Your task to perform on an android device: Is it going to rain tomorrow? Image 0: 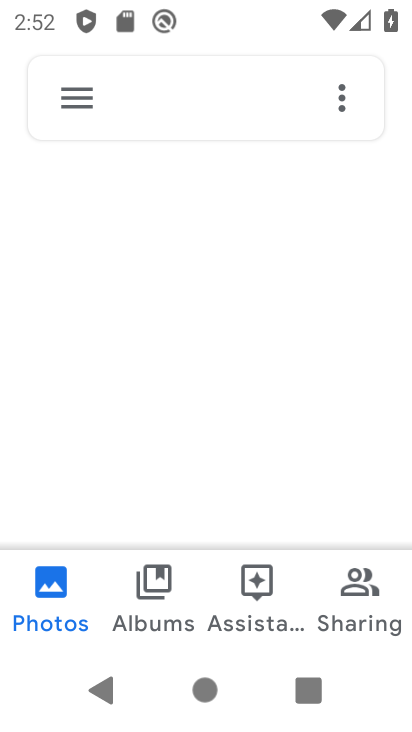
Step 0: press back button
Your task to perform on an android device: Is it going to rain tomorrow? Image 1: 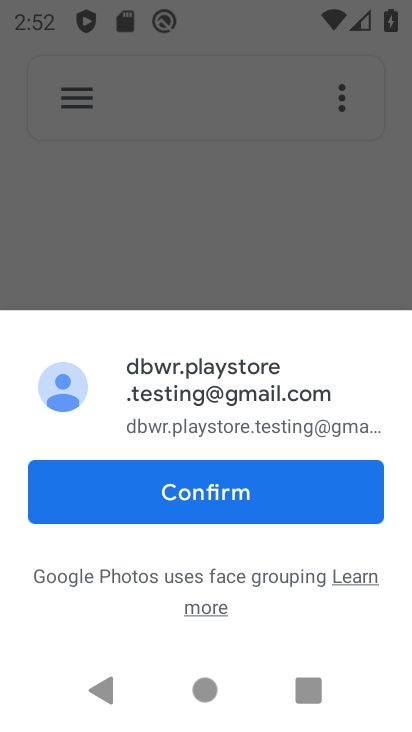
Step 1: press home button
Your task to perform on an android device: Is it going to rain tomorrow? Image 2: 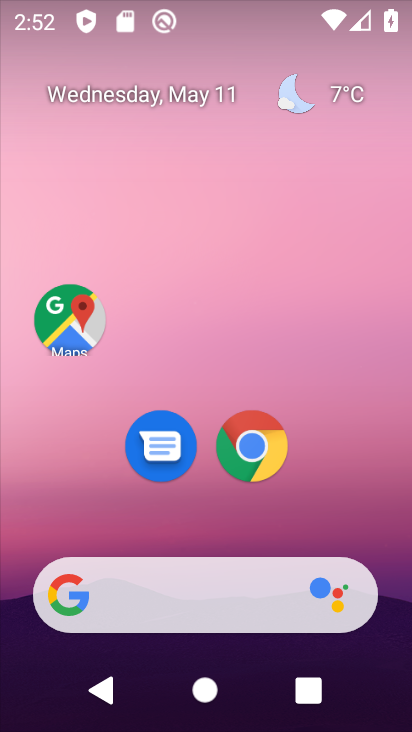
Step 2: click (223, 489)
Your task to perform on an android device: Is it going to rain tomorrow? Image 3: 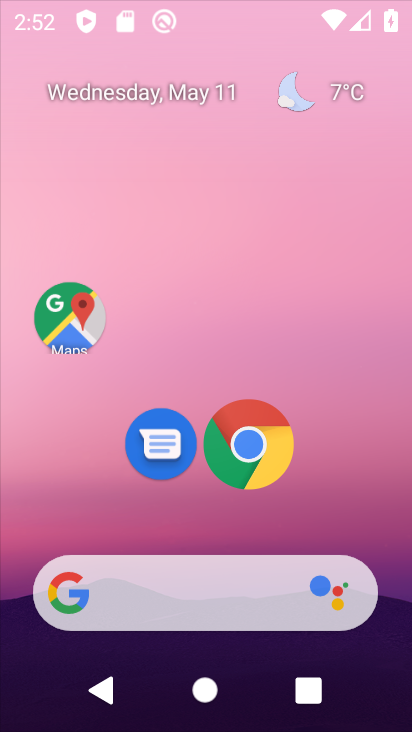
Step 3: drag from (343, 572) to (17, 20)
Your task to perform on an android device: Is it going to rain tomorrow? Image 4: 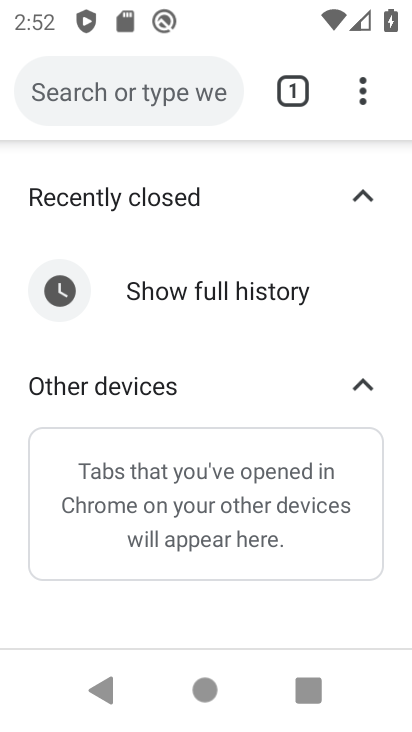
Step 4: press back button
Your task to perform on an android device: Is it going to rain tomorrow? Image 5: 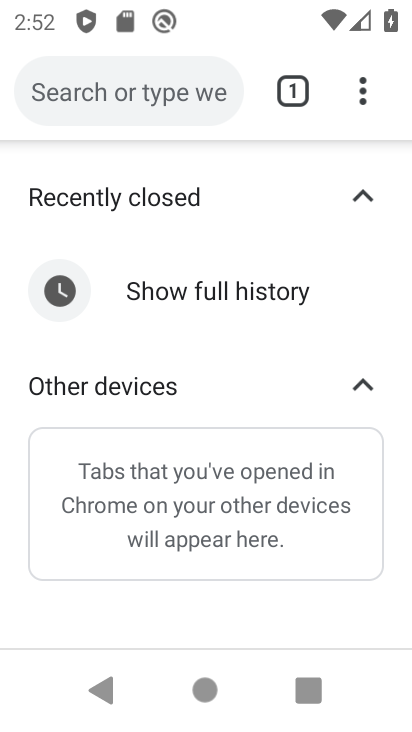
Step 5: press back button
Your task to perform on an android device: Is it going to rain tomorrow? Image 6: 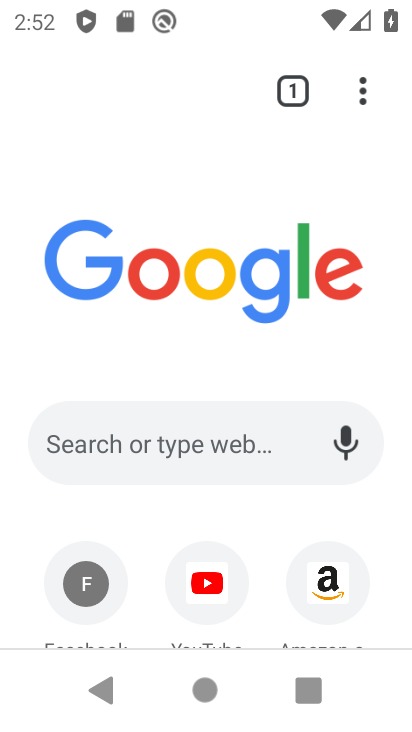
Step 6: drag from (6, 230) to (410, 359)
Your task to perform on an android device: Is it going to rain tomorrow? Image 7: 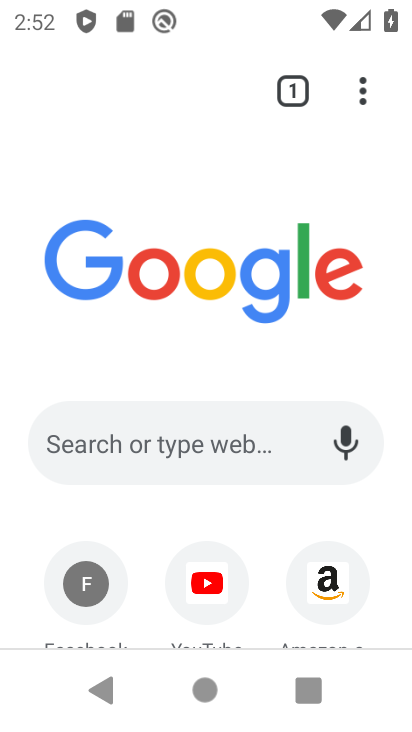
Step 7: drag from (7, 196) to (347, 197)
Your task to perform on an android device: Is it going to rain tomorrow? Image 8: 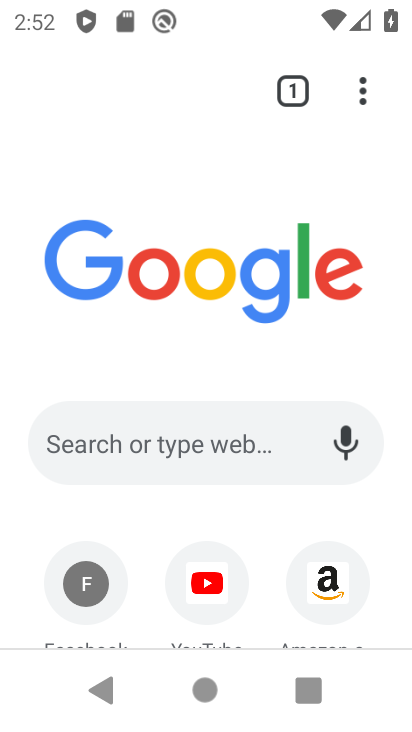
Step 8: drag from (11, 165) to (391, 295)
Your task to perform on an android device: Is it going to rain tomorrow? Image 9: 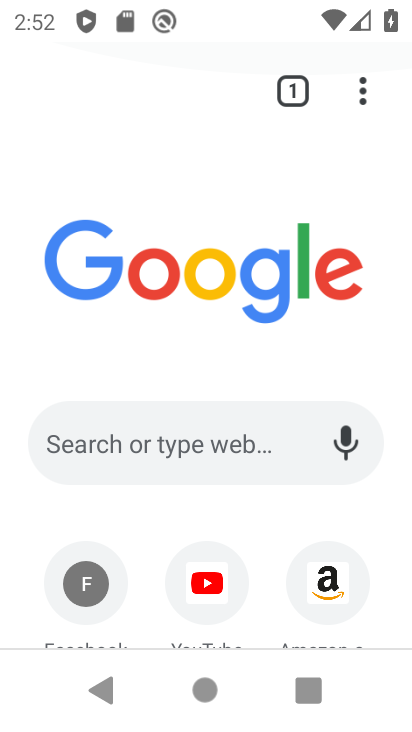
Step 9: drag from (5, 219) to (323, 328)
Your task to perform on an android device: Is it going to rain tomorrow? Image 10: 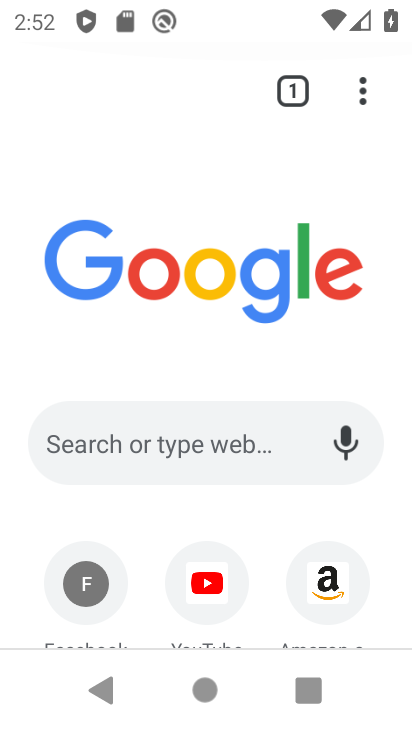
Step 10: drag from (45, 207) to (370, 367)
Your task to perform on an android device: Is it going to rain tomorrow? Image 11: 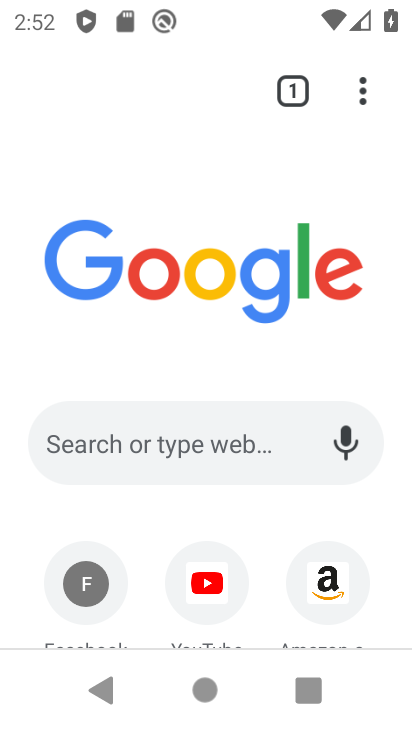
Step 11: drag from (29, 185) to (408, 309)
Your task to perform on an android device: Is it going to rain tomorrow? Image 12: 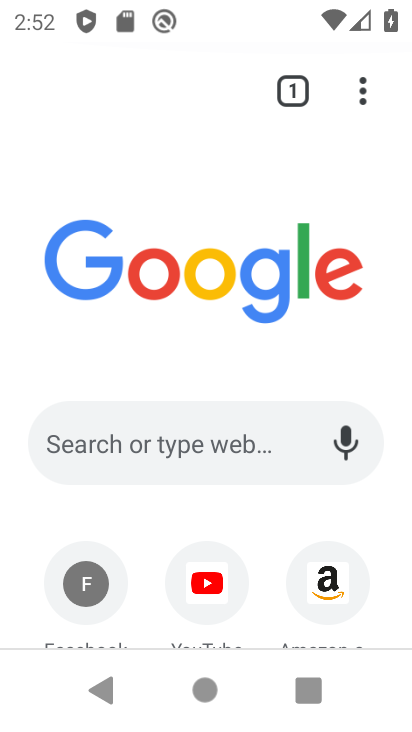
Step 12: drag from (32, 211) to (399, 222)
Your task to perform on an android device: Is it going to rain tomorrow? Image 13: 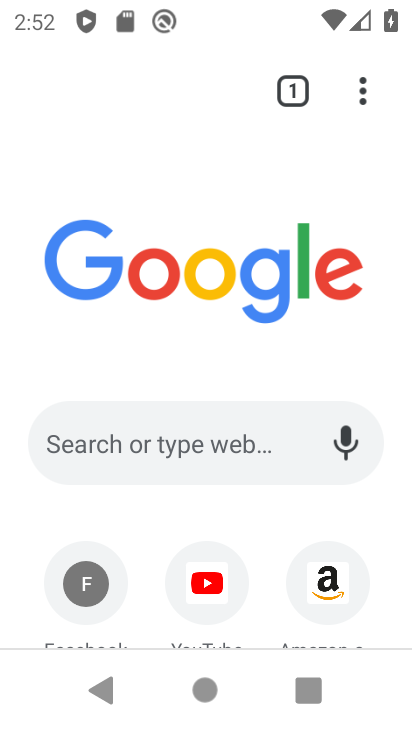
Step 13: drag from (6, 149) to (396, 270)
Your task to perform on an android device: Is it going to rain tomorrow? Image 14: 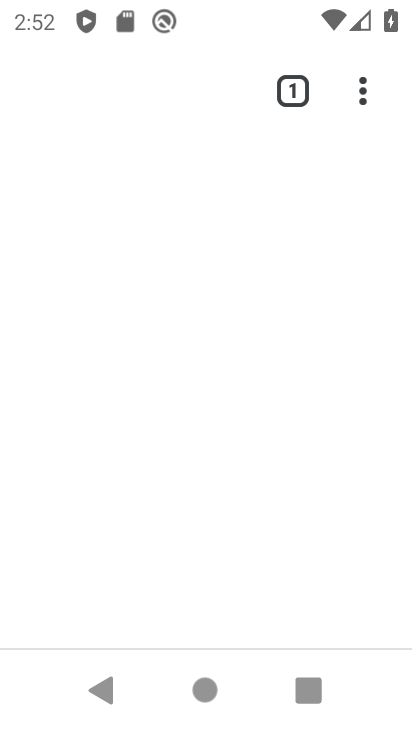
Step 14: drag from (108, 202) to (348, 268)
Your task to perform on an android device: Is it going to rain tomorrow? Image 15: 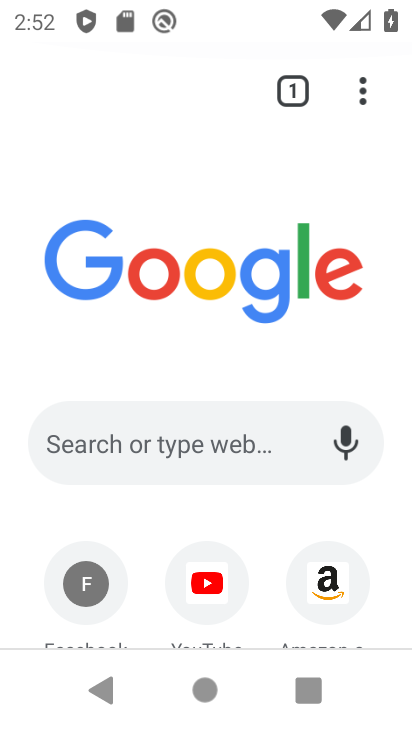
Step 15: drag from (88, 243) to (373, 288)
Your task to perform on an android device: Is it going to rain tomorrow? Image 16: 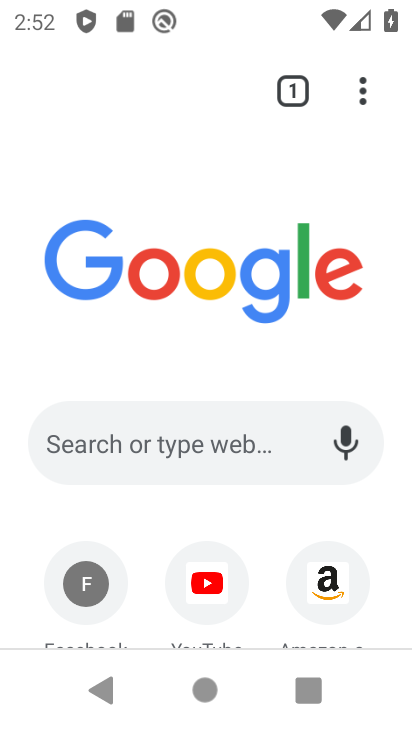
Step 16: drag from (406, 265) to (364, 299)
Your task to perform on an android device: Is it going to rain tomorrow? Image 17: 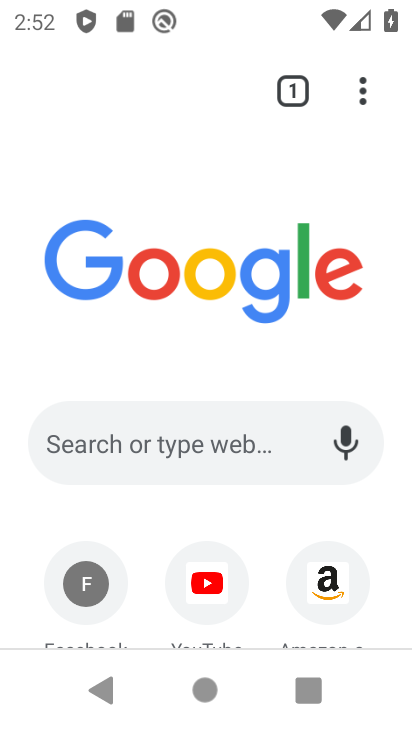
Step 17: drag from (369, 316) to (396, 441)
Your task to perform on an android device: Is it going to rain tomorrow? Image 18: 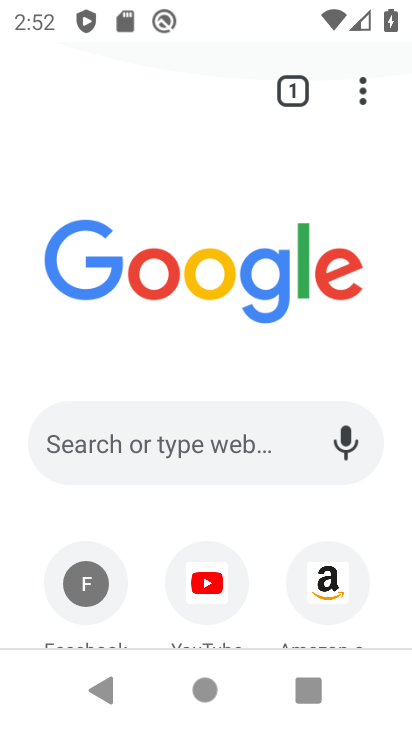
Step 18: drag from (11, 267) to (297, 414)
Your task to perform on an android device: Is it going to rain tomorrow? Image 19: 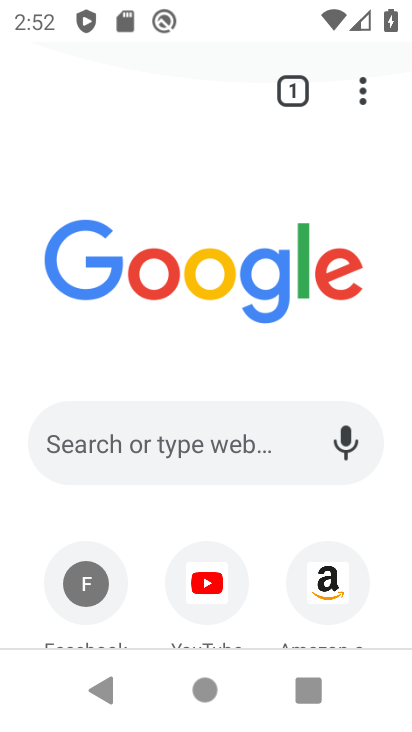
Step 19: drag from (73, 331) to (400, 409)
Your task to perform on an android device: Is it going to rain tomorrow? Image 20: 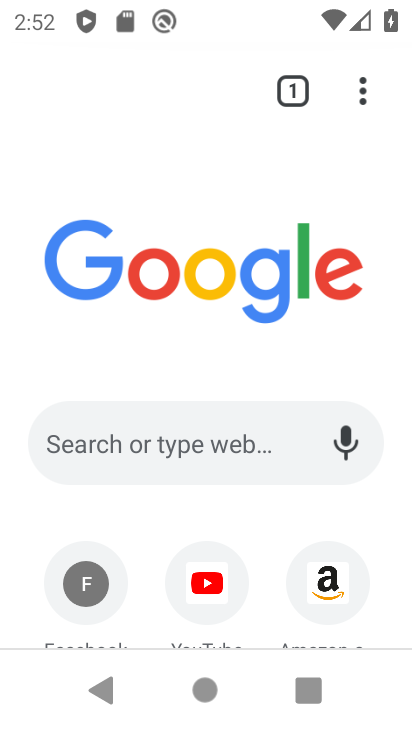
Step 20: drag from (277, 381) to (366, 291)
Your task to perform on an android device: Is it going to rain tomorrow? Image 21: 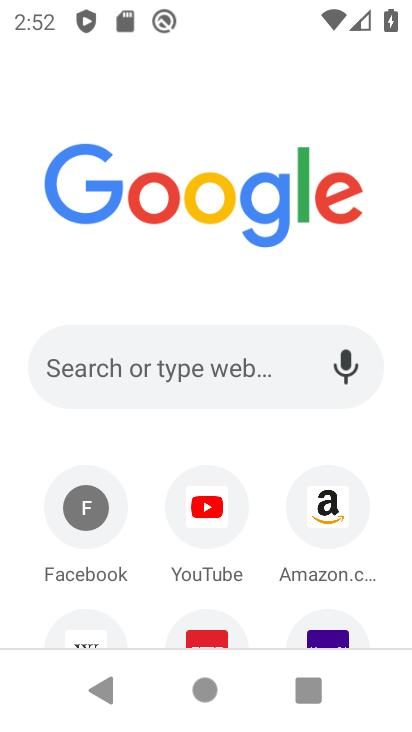
Step 21: drag from (176, 191) to (362, 307)
Your task to perform on an android device: Is it going to rain tomorrow? Image 22: 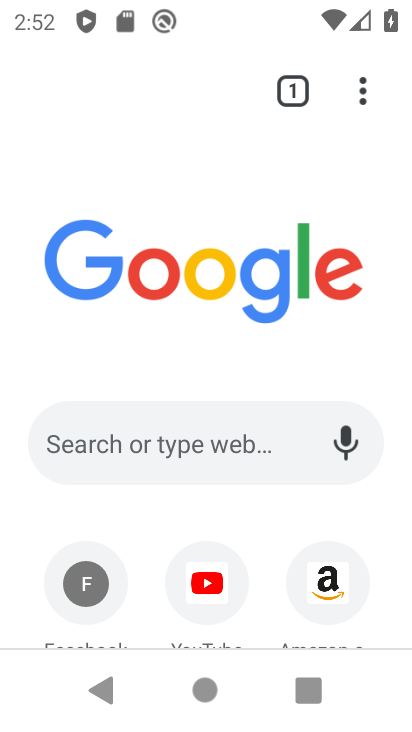
Step 22: drag from (169, 189) to (268, 533)
Your task to perform on an android device: Is it going to rain tomorrow? Image 23: 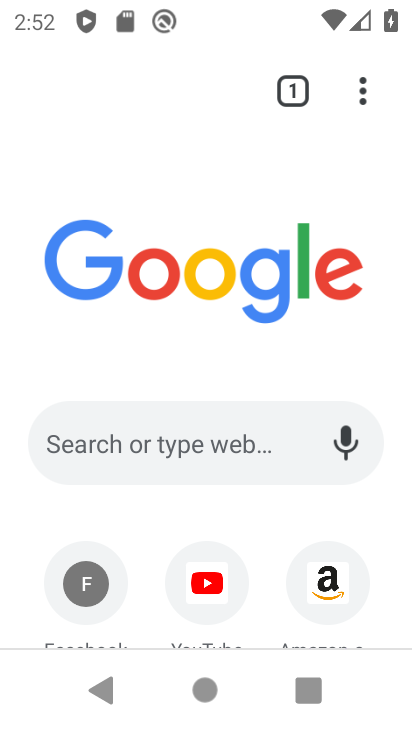
Step 23: drag from (39, 207) to (394, 278)
Your task to perform on an android device: Is it going to rain tomorrow? Image 24: 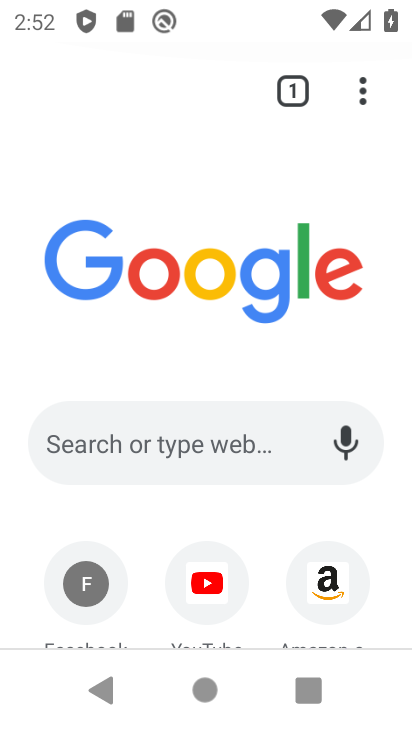
Step 24: drag from (104, 221) to (374, 283)
Your task to perform on an android device: Is it going to rain tomorrow? Image 25: 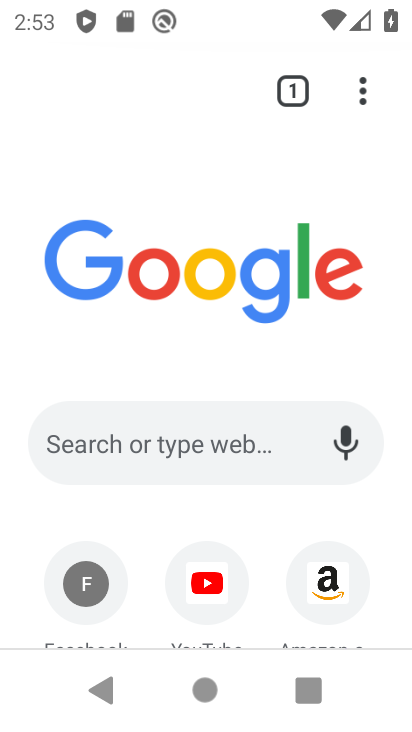
Step 25: press home button
Your task to perform on an android device: Is it going to rain tomorrow? Image 26: 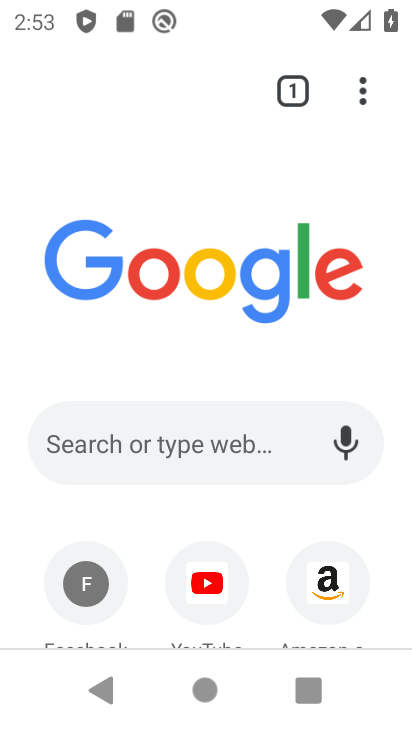
Step 26: press home button
Your task to perform on an android device: Is it going to rain tomorrow? Image 27: 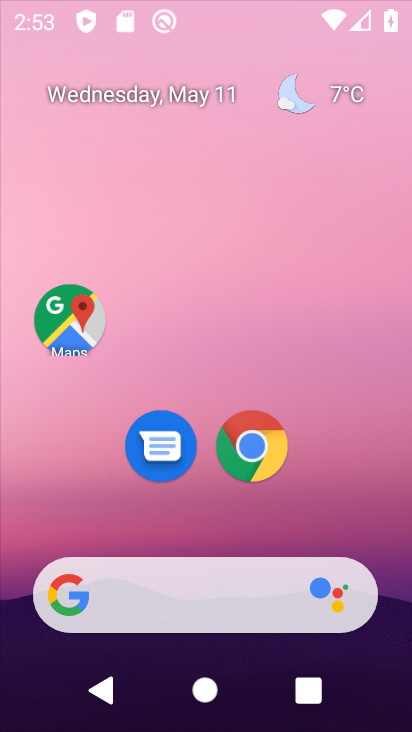
Step 27: press home button
Your task to perform on an android device: Is it going to rain tomorrow? Image 28: 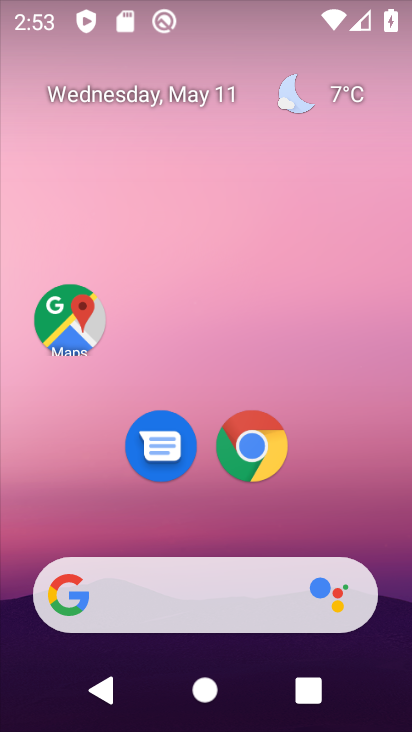
Step 28: press home button
Your task to perform on an android device: Is it going to rain tomorrow? Image 29: 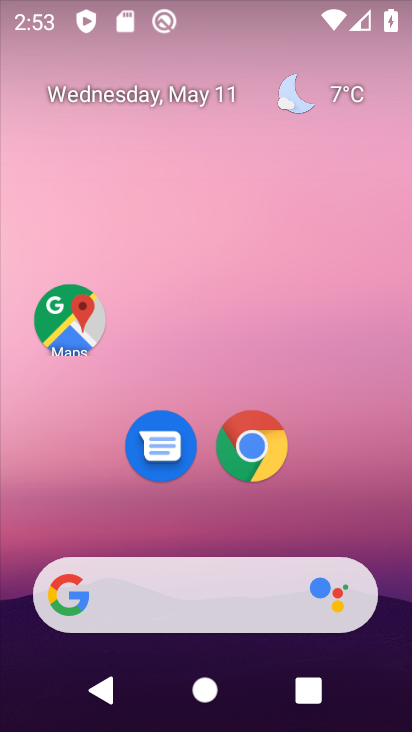
Step 29: click (268, 328)
Your task to perform on an android device: Is it going to rain tomorrow? Image 30: 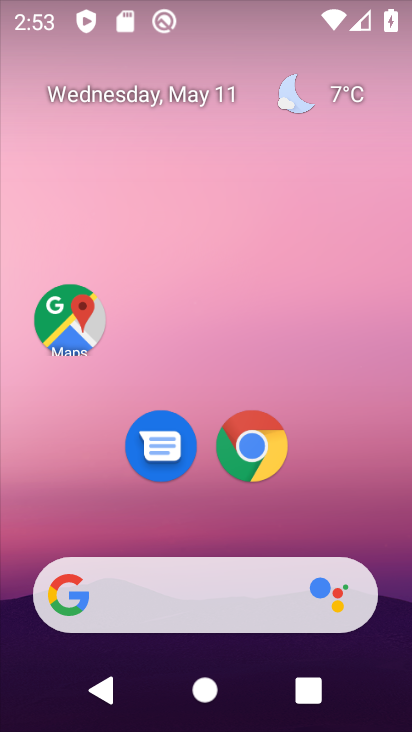
Step 30: click (301, 94)
Your task to perform on an android device: Is it going to rain tomorrow? Image 31: 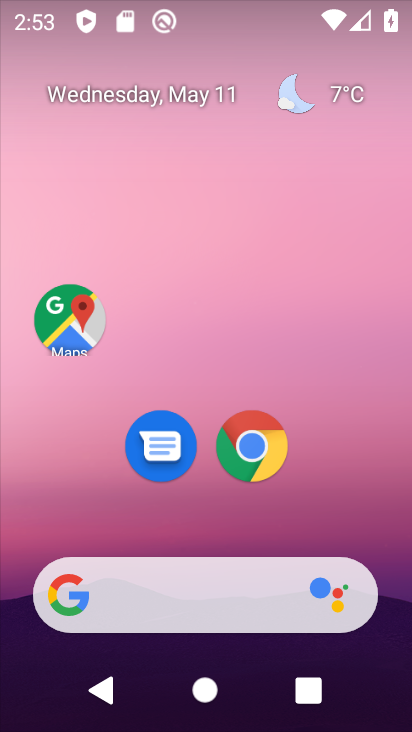
Step 31: click (301, 94)
Your task to perform on an android device: Is it going to rain tomorrow? Image 32: 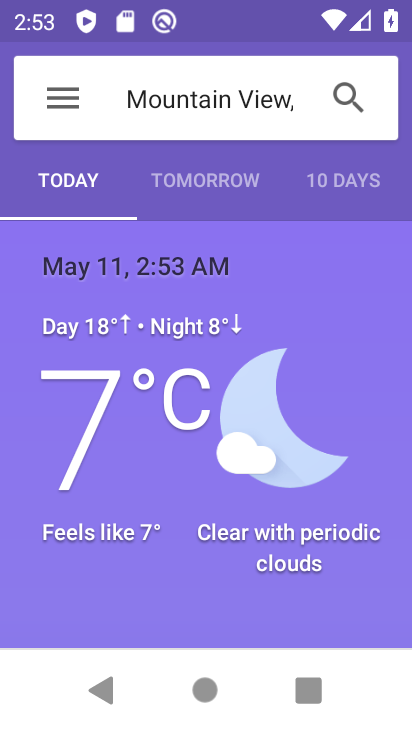
Step 32: task complete